Your task to perform on an android device: When is my next meeting? Image 0: 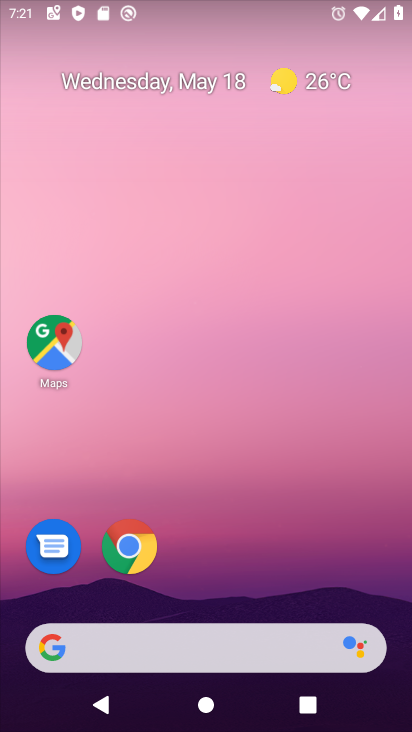
Step 0: drag from (385, 619) to (298, 23)
Your task to perform on an android device: When is my next meeting? Image 1: 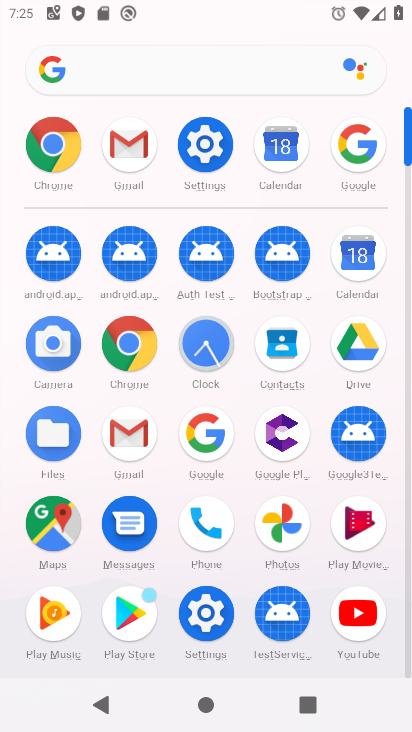
Step 1: click (377, 256)
Your task to perform on an android device: When is my next meeting? Image 2: 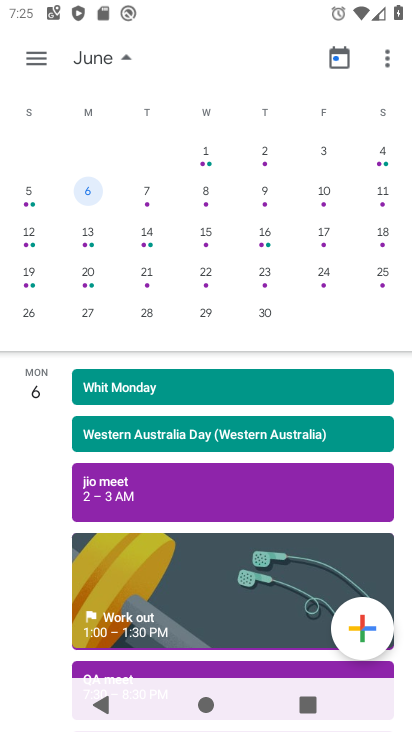
Step 2: task complete